Your task to perform on an android device: Clear all items from cart on costco. Add "logitech g pro" to the cart on costco Image 0: 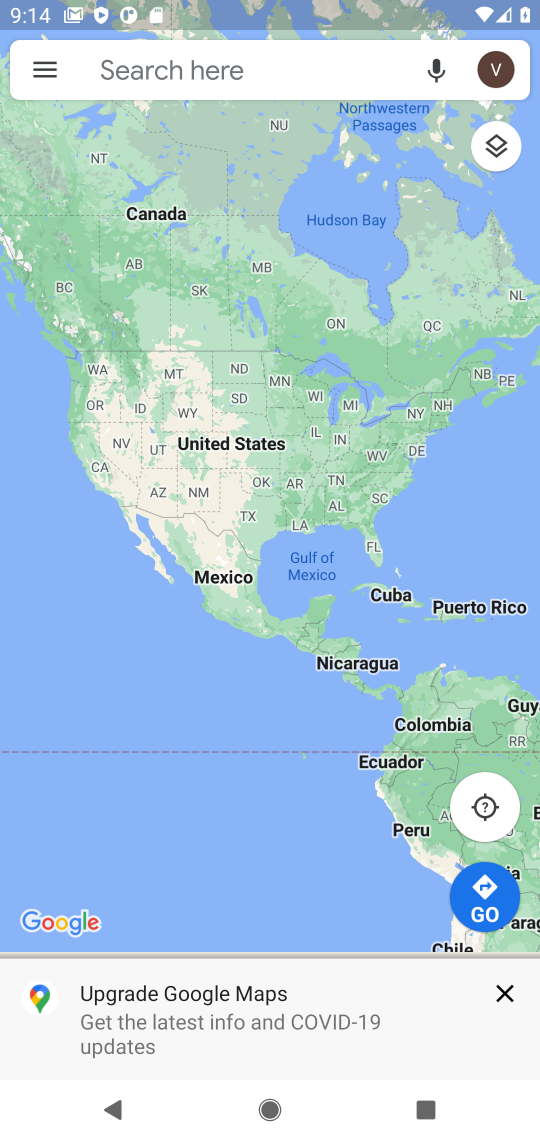
Step 0: press home button
Your task to perform on an android device: Clear all items from cart on costco. Add "logitech g pro" to the cart on costco Image 1: 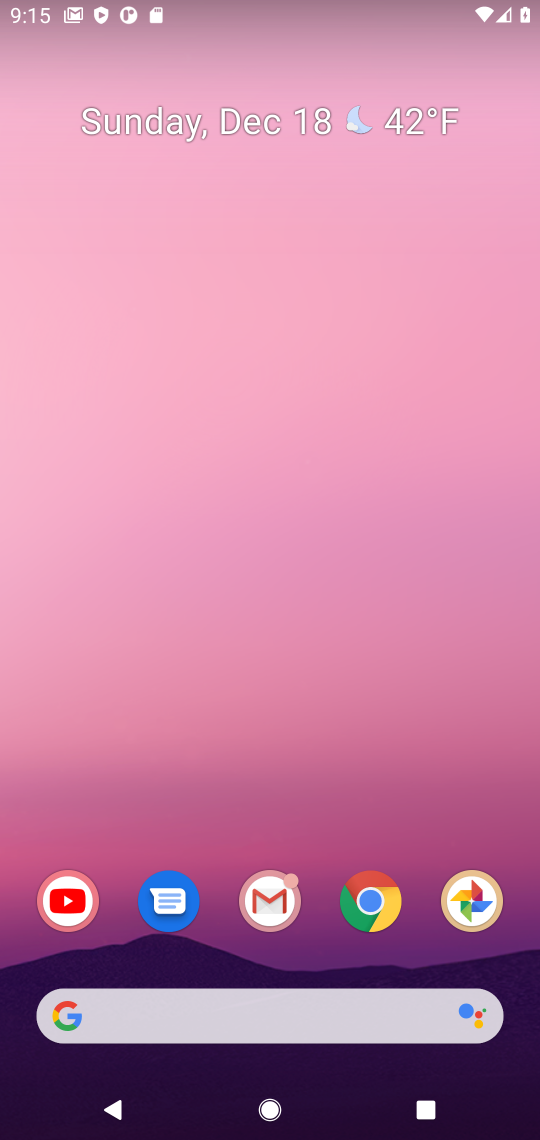
Step 1: click (394, 919)
Your task to perform on an android device: Clear all items from cart on costco. Add "logitech g pro" to the cart on costco Image 2: 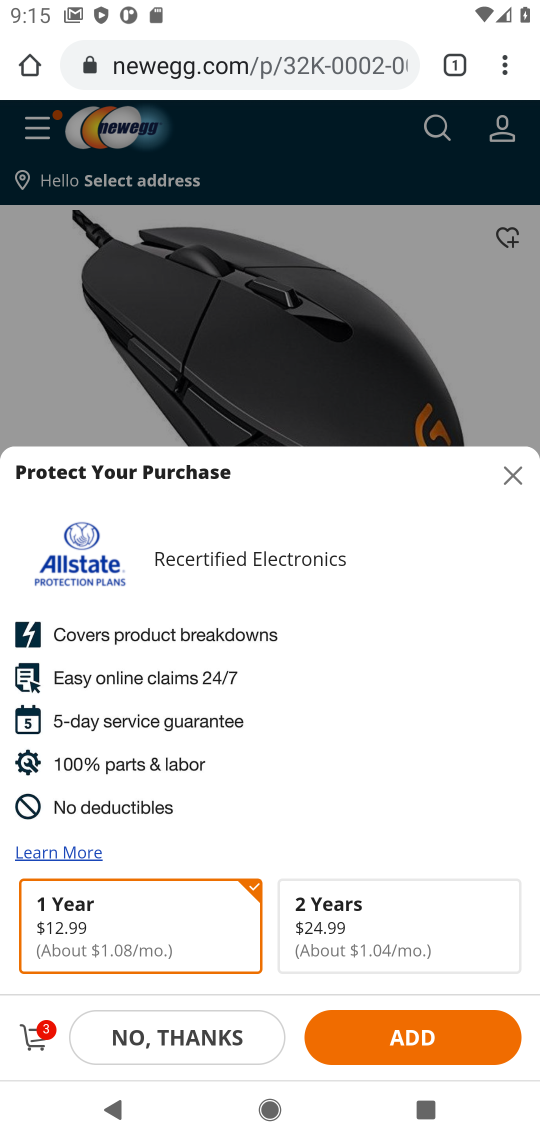
Step 2: click (371, 1027)
Your task to perform on an android device: Clear all items from cart on costco. Add "logitech g pro" to the cart on costco Image 3: 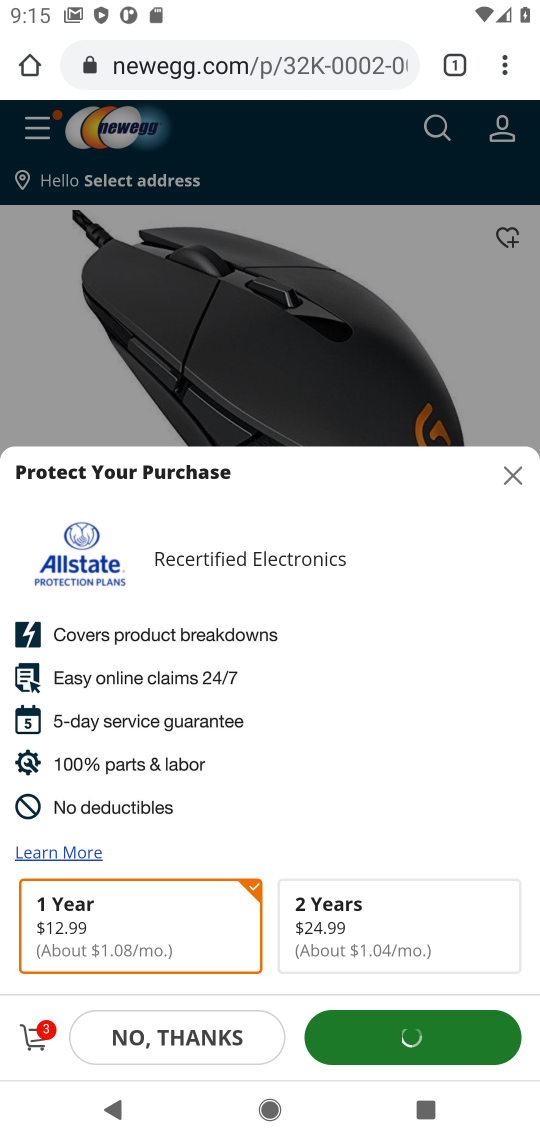
Step 3: task complete